Your task to perform on an android device: uninstall "LiveIn - Share Your Moment" Image 0: 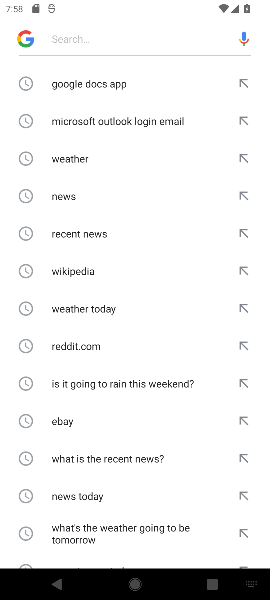
Step 0: task complete